Your task to perform on an android device: turn off priority inbox in the gmail app Image 0: 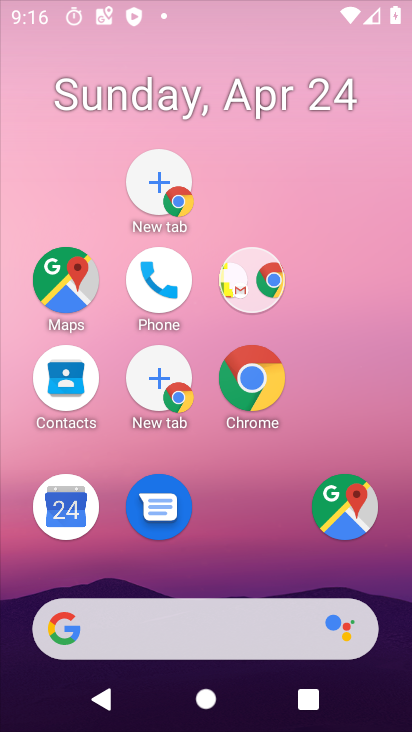
Step 0: drag from (223, 637) to (126, 45)
Your task to perform on an android device: turn off priority inbox in the gmail app Image 1: 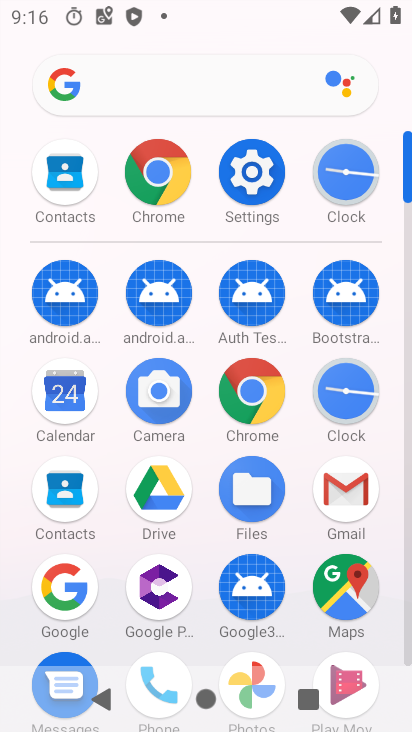
Step 1: click (342, 494)
Your task to perform on an android device: turn off priority inbox in the gmail app Image 2: 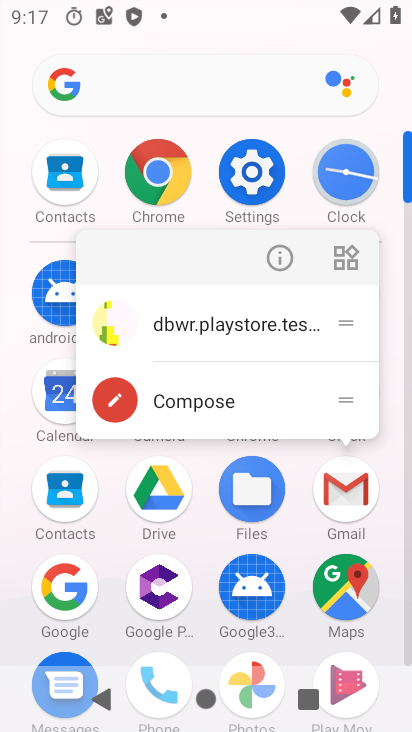
Step 2: click (344, 490)
Your task to perform on an android device: turn off priority inbox in the gmail app Image 3: 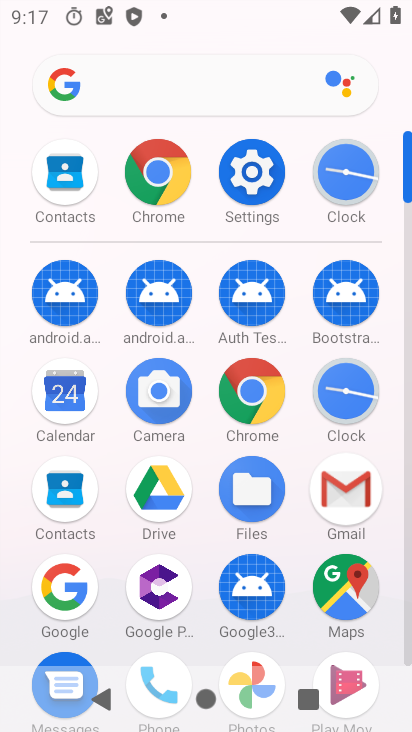
Step 3: click (344, 490)
Your task to perform on an android device: turn off priority inbox in the gmail app Image 4: 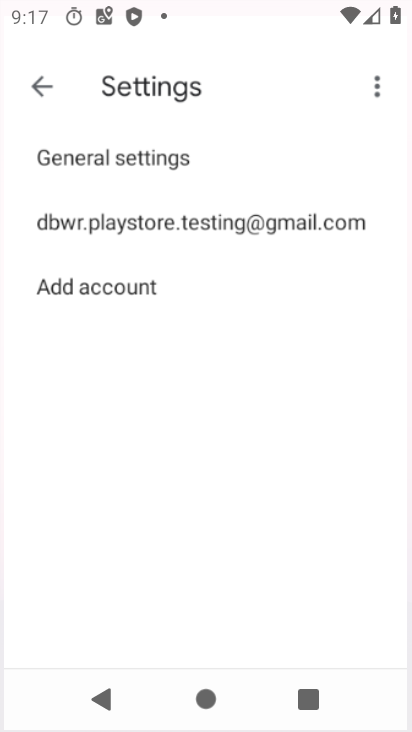
Step 4: click (344, 490)
Your task to perform on an android device: turn off priority inbox in the gmail app Image 5: 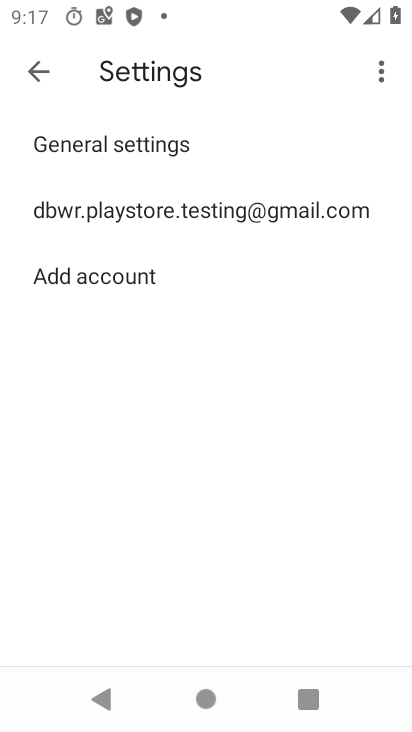
Step 5: click (141, 210)
Your task to perform on an android device: turn off priority inbox in the gmail app Image 6: 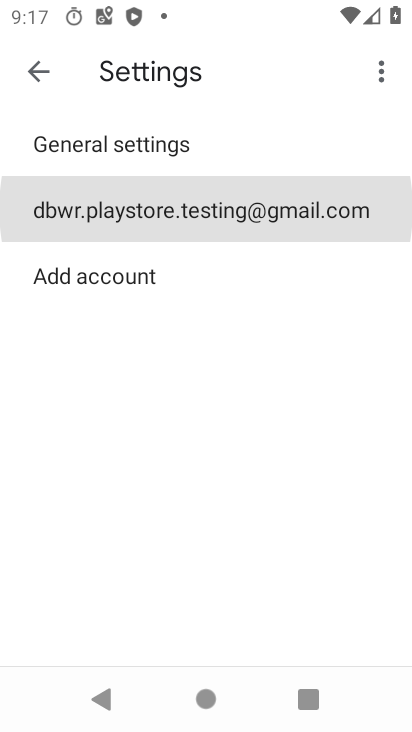
Step 6: click (141, 210)
Your task to perform on an android device: turn off priority inbox in the gmail app Image 7: 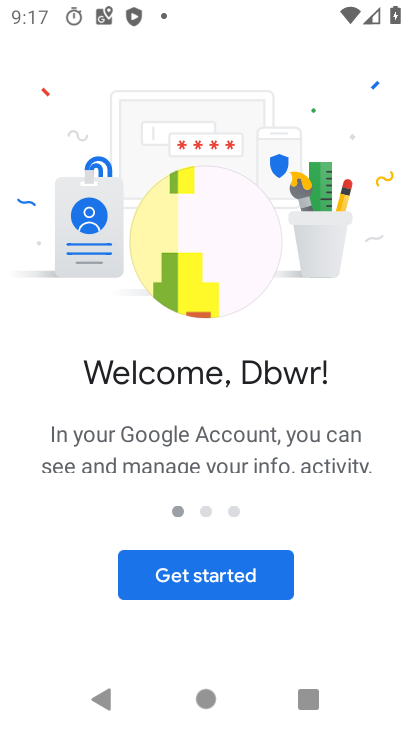
Step 7: click (220, 574)
Your task to perform on an android device: turn off priority inbox in the gmail app Image 8: 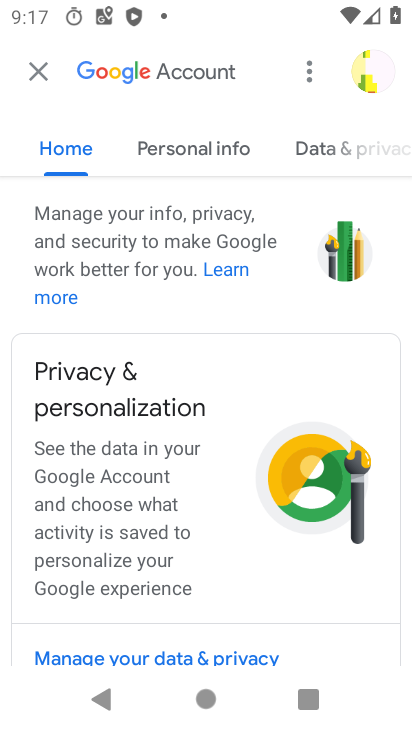
Step 8: click (36, 81)
Your task to perform on an android device: turn off priority inbox in the gmail app Image 9: 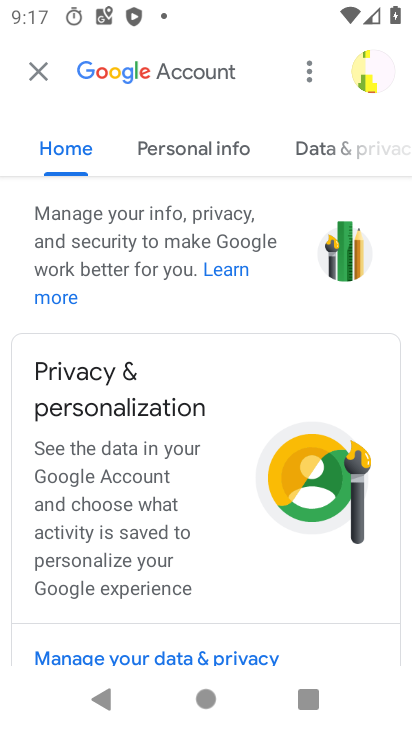
Step 9: click (38, 67)
Your task to perform on an android device: turn off priority inbox in the gmail app Image 10: 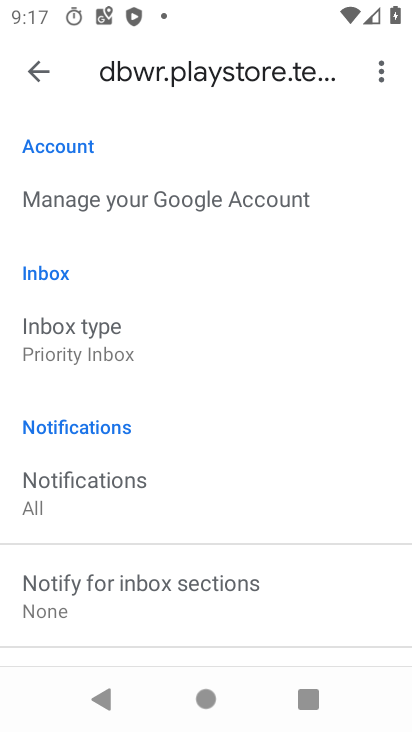
Step 10: click (52, 339)
Your task to perform on an android device: turn off priority inbox in the gmail app Image 11: 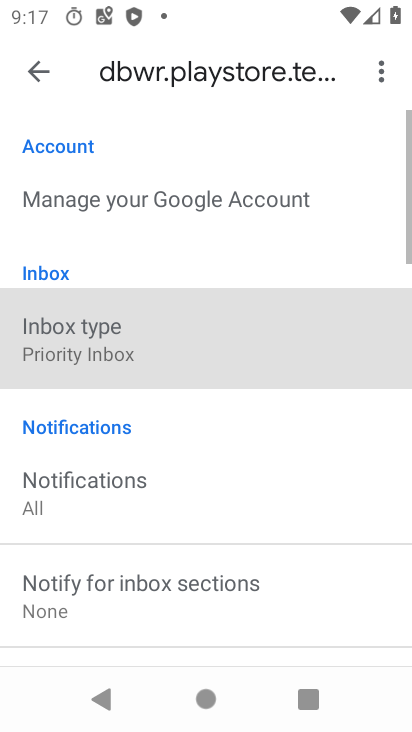
Step 11: click (52, 339)
Your task to perform on an android device: turn off priority inbox in the gmail app Image 12: 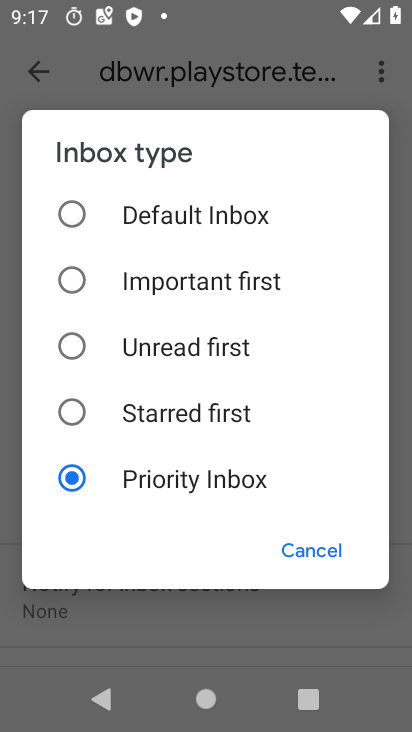
Step 12: click (63, 407)
Your task to perform on an android device: turn off priority inbox in the gmail app Image 13: 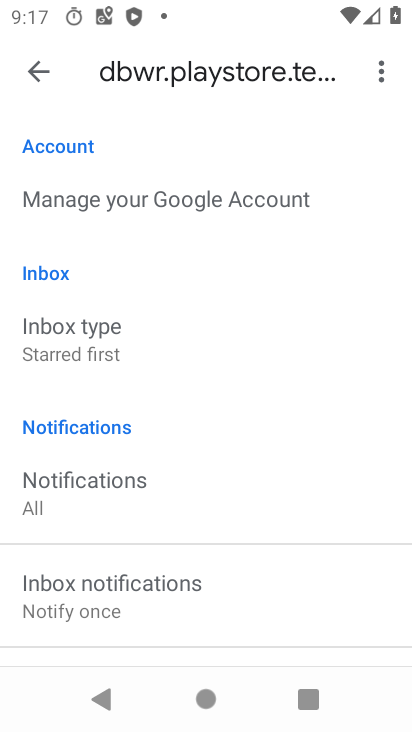
Step 13: task complete